Your task to perform on an android device: Add macbook air to the cart on costco.com Image 0: 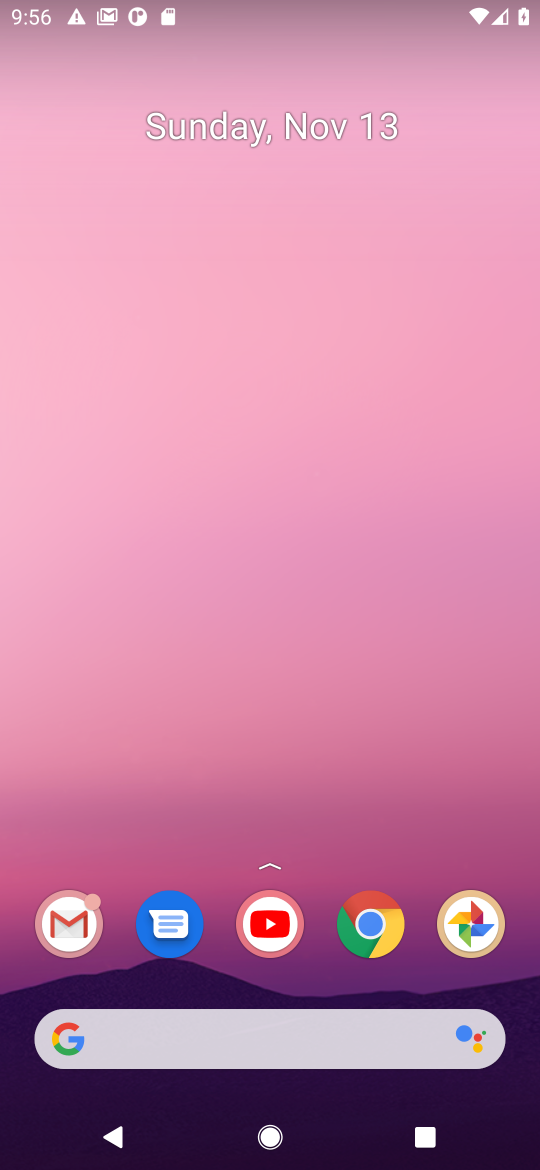
Step 0: click (371, 937)
Your task to perform on an android device: Add macbook air to the cart on costco.com Image 1: 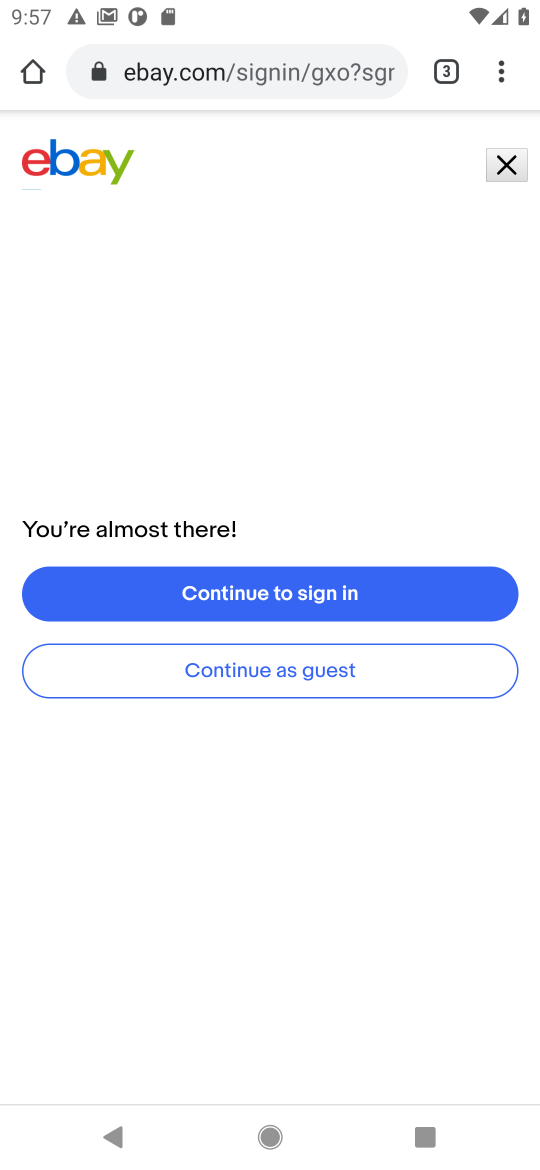
Step 1: click (214, 76)
Your task to perform on an android device: Add macbook air to the cart on costco.com Image 2: 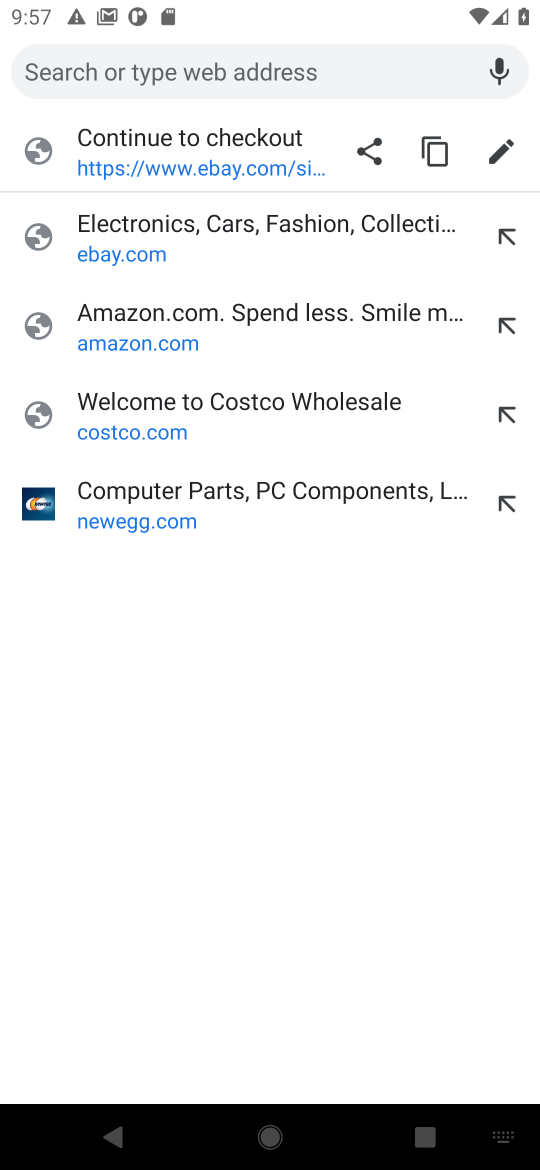
Step 2: click (125, 430)
Your task to perform on an android device: Add macbook air to the cart on costco.com Image 3: 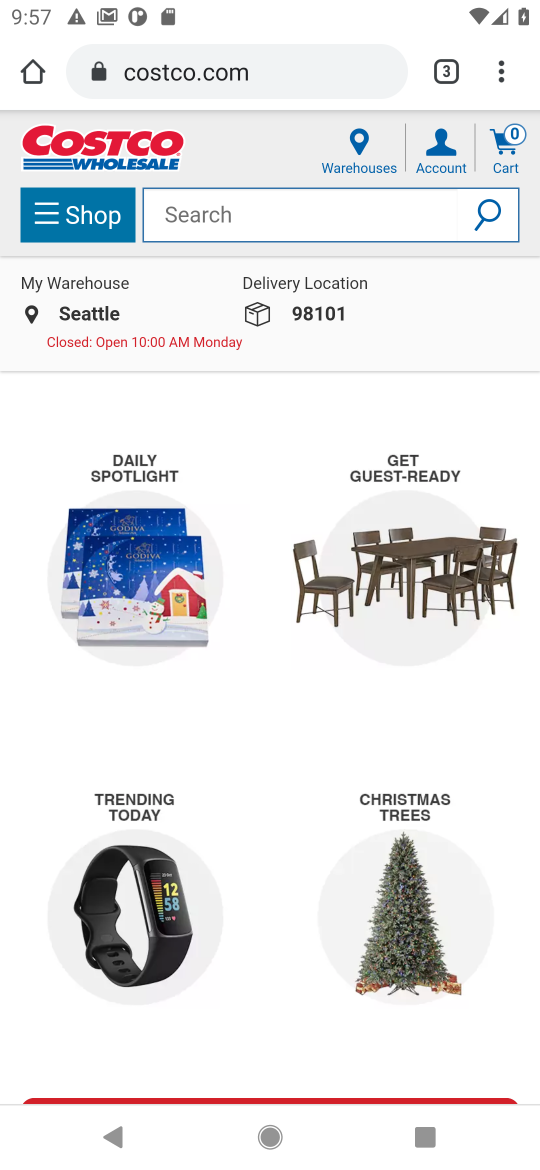
Step 3: click (186, 220)
Your task to perform on an android device: Add macbook air to the cart on costco.com Image 4: 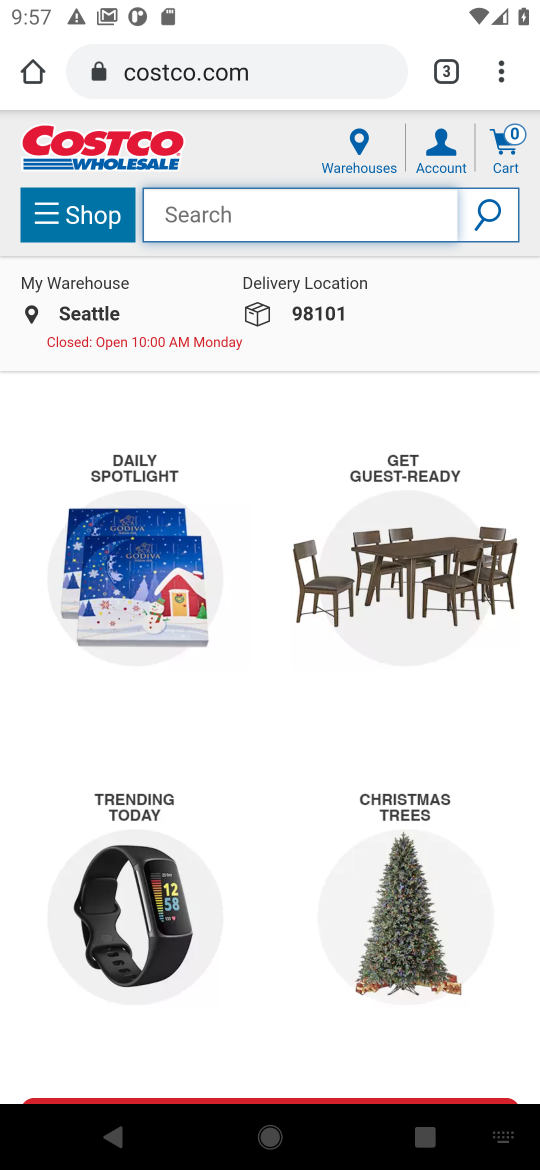
Step 4: type " macbook air"
Your task to perform on an android device: Add macbook air to the cart on costco.com Image 5: 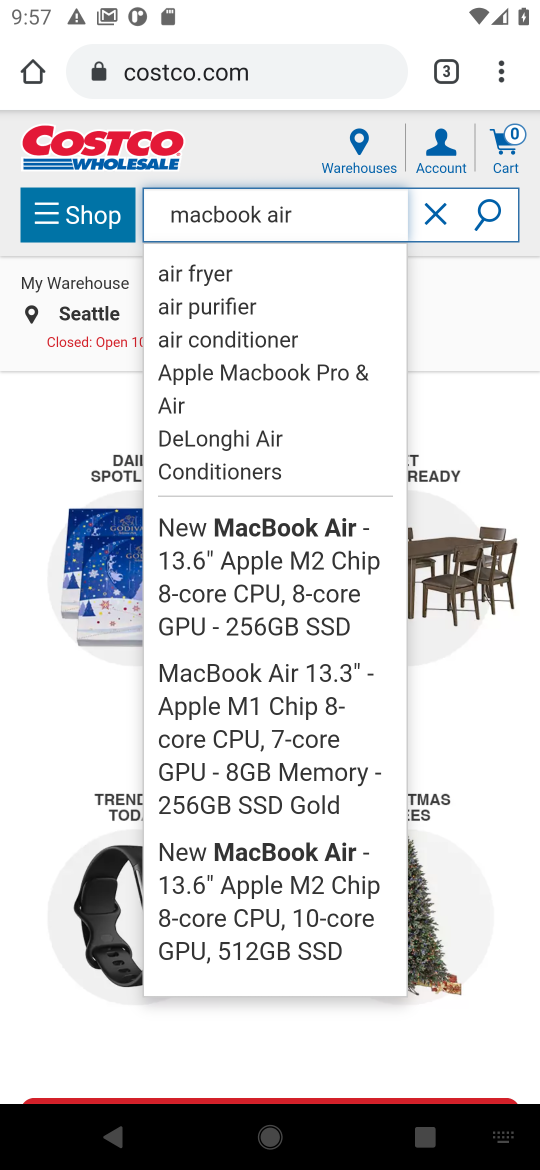
Step 5: click (495, 220)
Your task to perform on an android device: Add macbook air to the cart on costco.com Image 6: 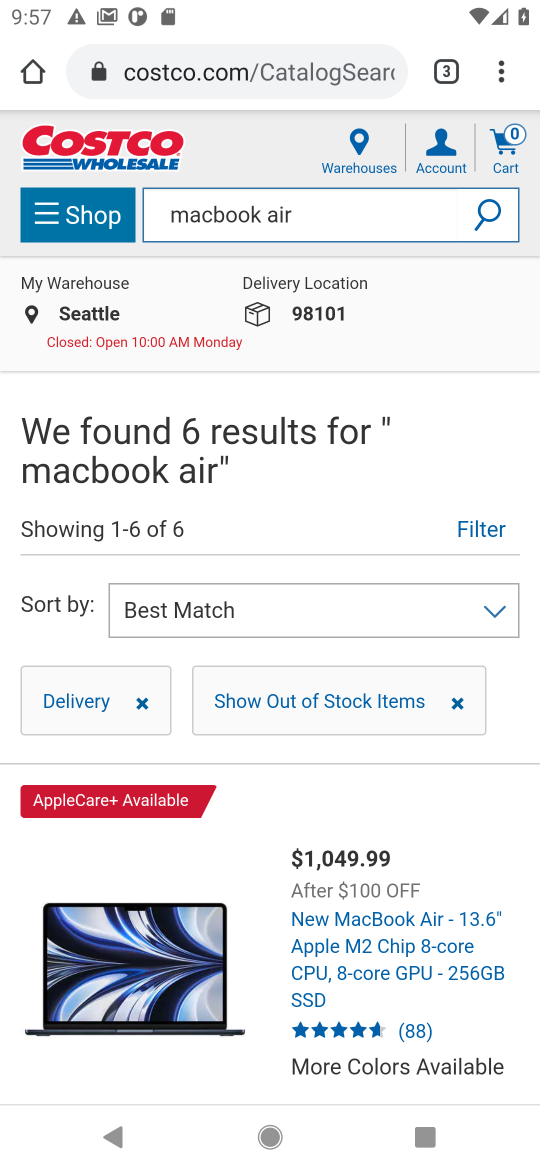
Step 6: drag from (190, 980) to (175, 512)
Your task to perform on an android device: Add macbook air to the cart on costco.com Image 7: 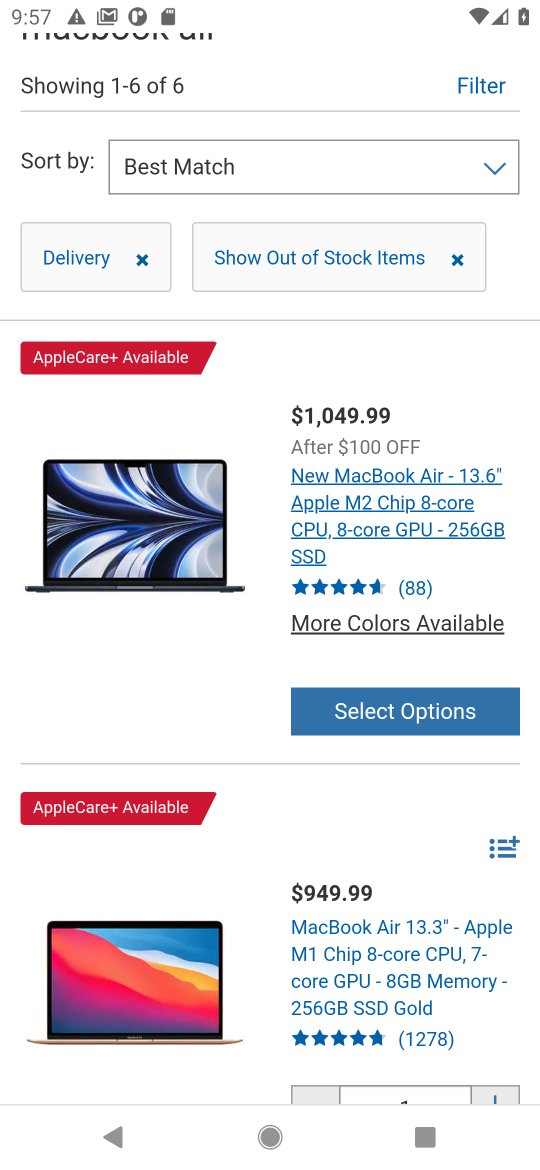
Step 7: click (163, 553)
Your task to perform on an android device: Add macbook air to the cart on costco.com Image 8: 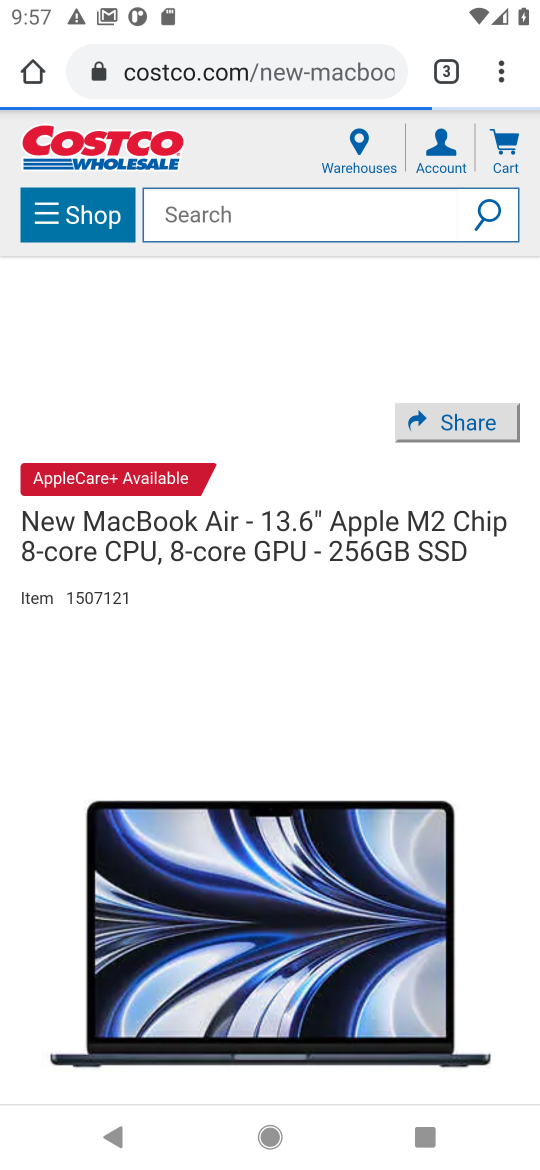
Step 8: drag from (249, 890) to (248, 283)
Your task to perform on an android device: Add macbook air to the cart on costco.com Image 9: 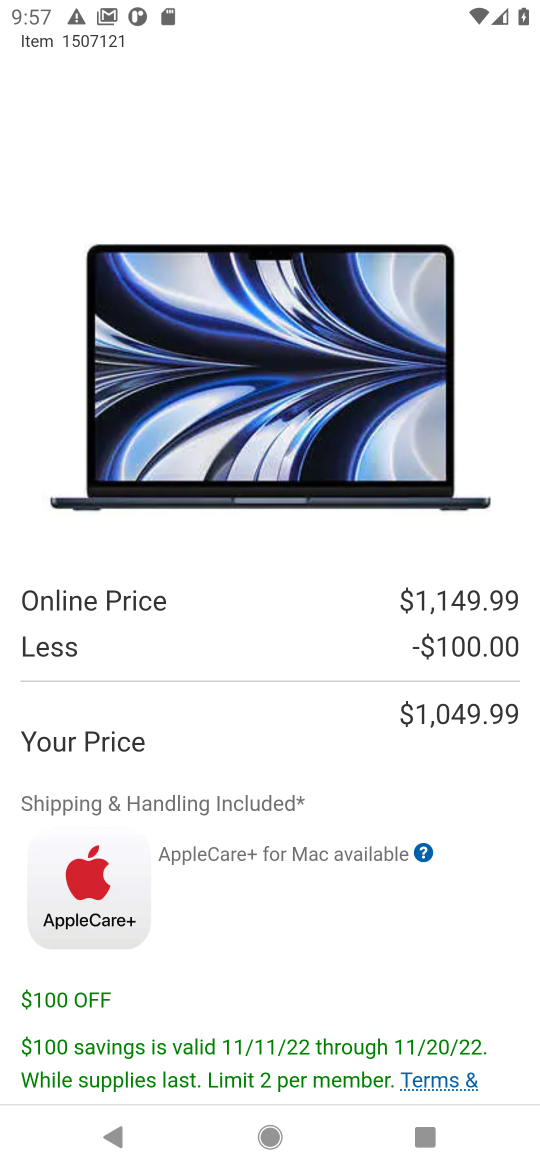
Step 9: drag from (234, 777) to (238, 390)
Your task to perform on an android device: Add macbook air to the cart on costco.com Image 10: 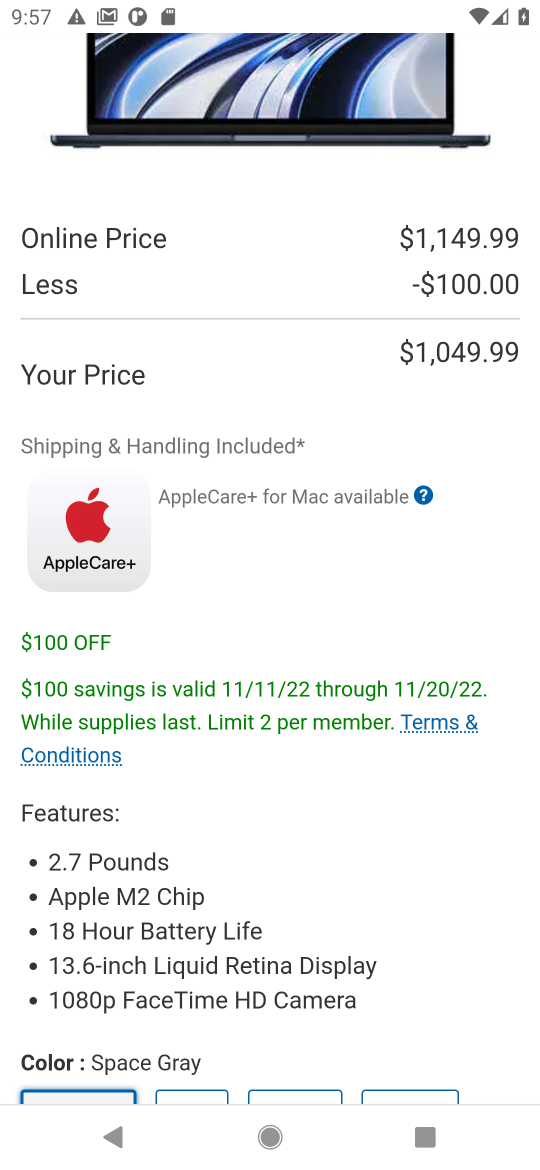
Step 10: drag from (220, 847) to (222, 330)
Your task to perform on an android device: Add macbook air to the cart on costco.com Image 11: 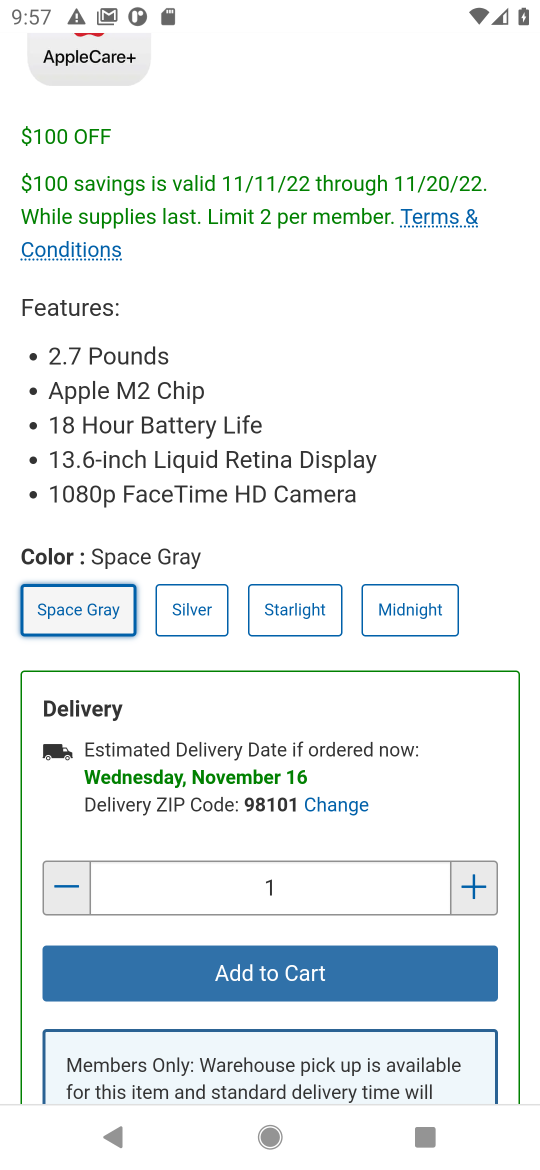
Step 11: click (254, 968)
Your task to perform on an android device: Add macbook air to the cart on costco.com Image 12: 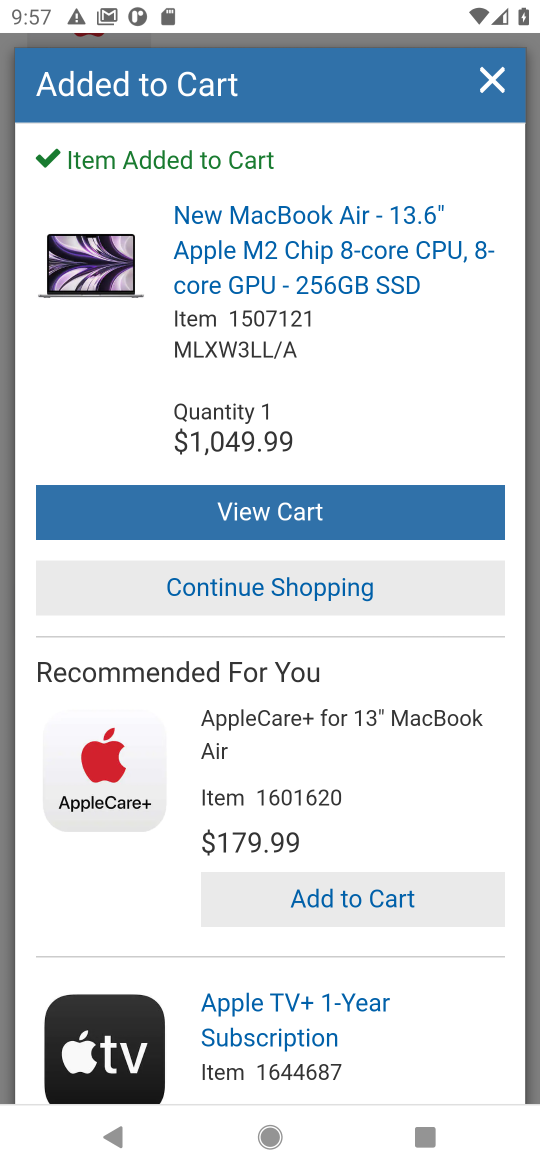
Step 12: task complete